Your task to perform on an android device: open app "Venmo" (install if not already installed) and go to login screen Image 0: 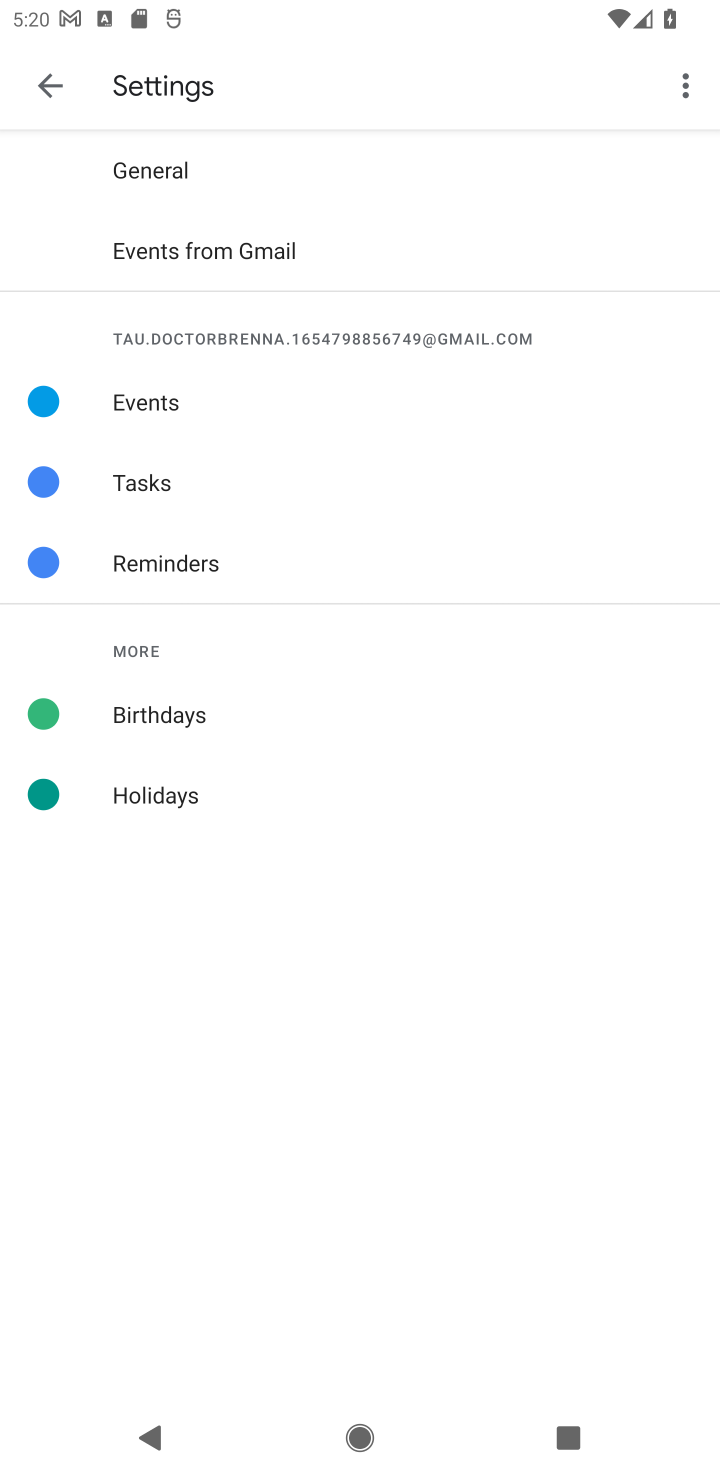
Step 0: press home button
Your task to perform on an android device: open app "Venmo" (install if not already installed) and go to login screen Image 1: 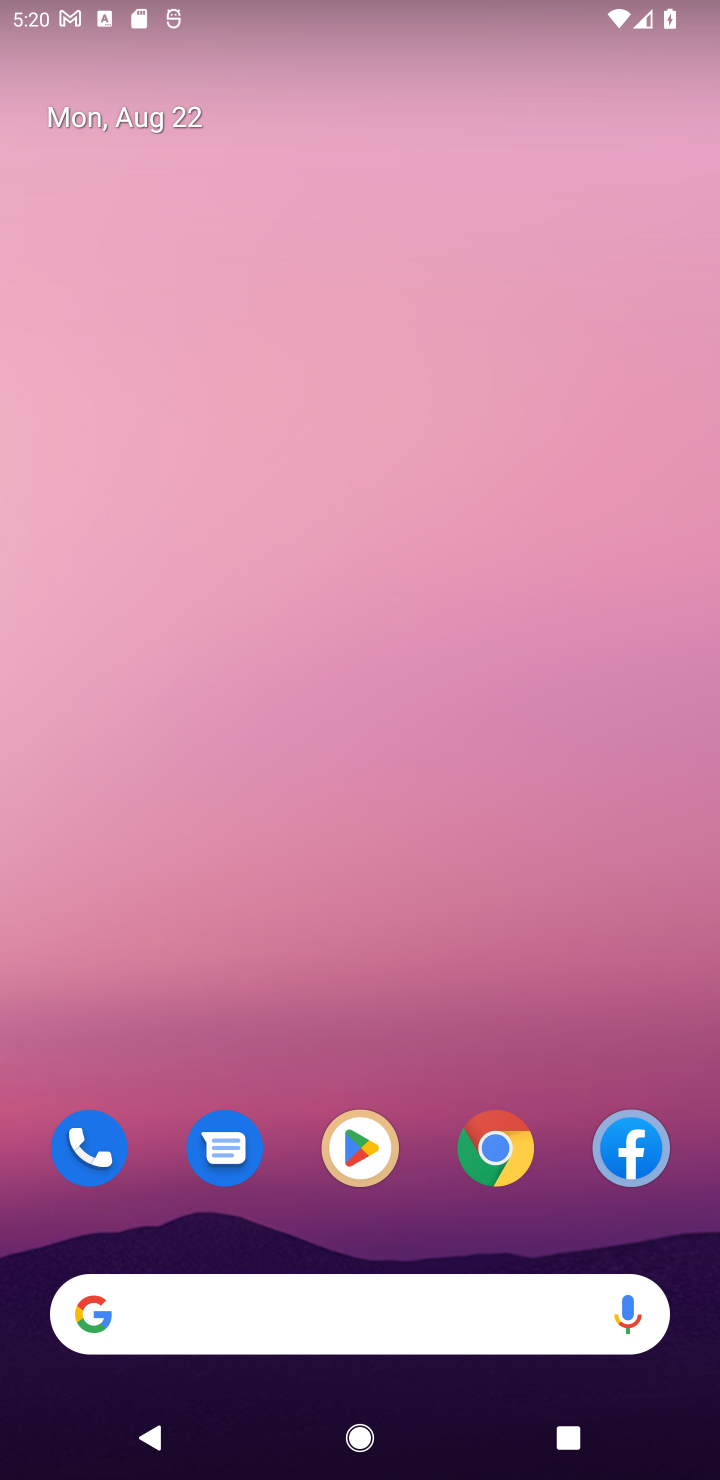
Step 1: click (364, 1141)
Your task to perform on an android device: open app "Venmo" (install if not already installed) and go to login screen Image 2: 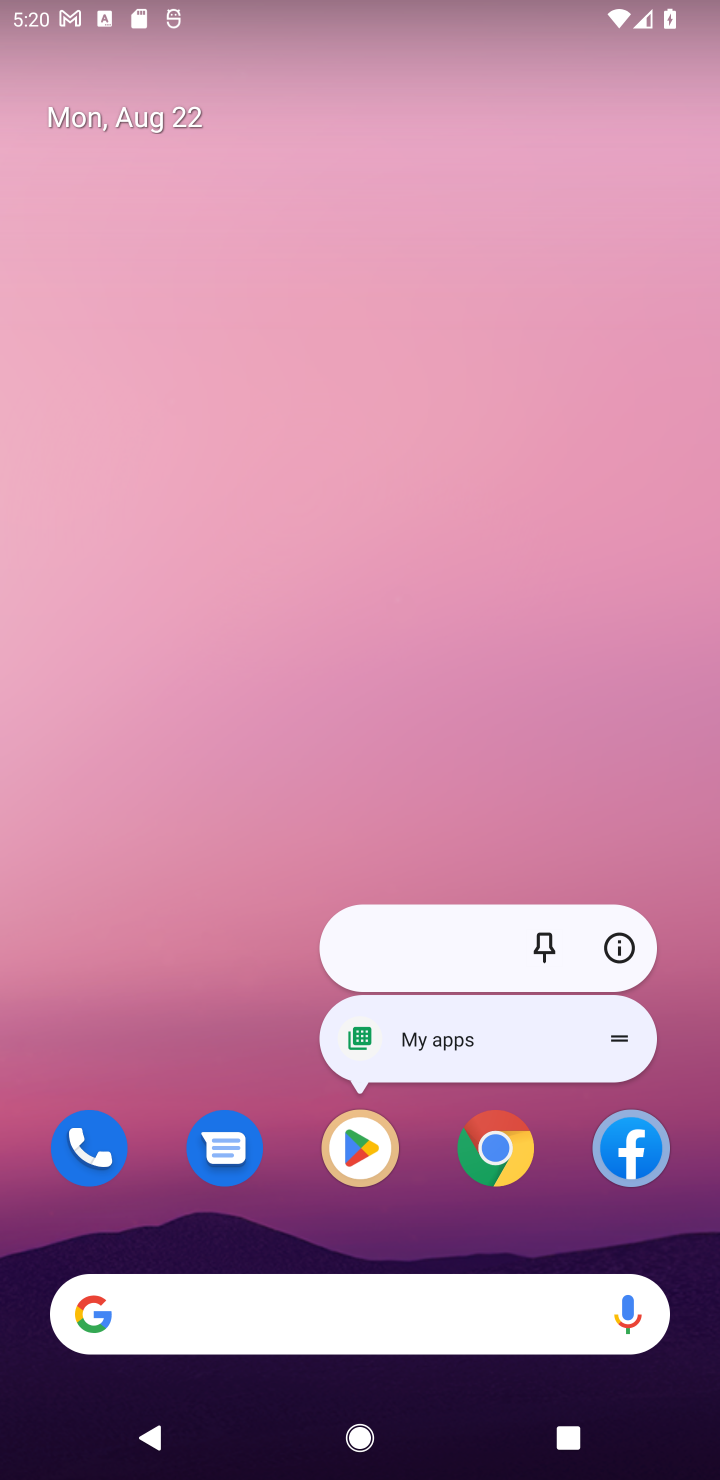
Step 2: click (360, 1143)
Your task to perform on an android device: open app "Venmo" (install if not already installed) and go to login screen Image 3: 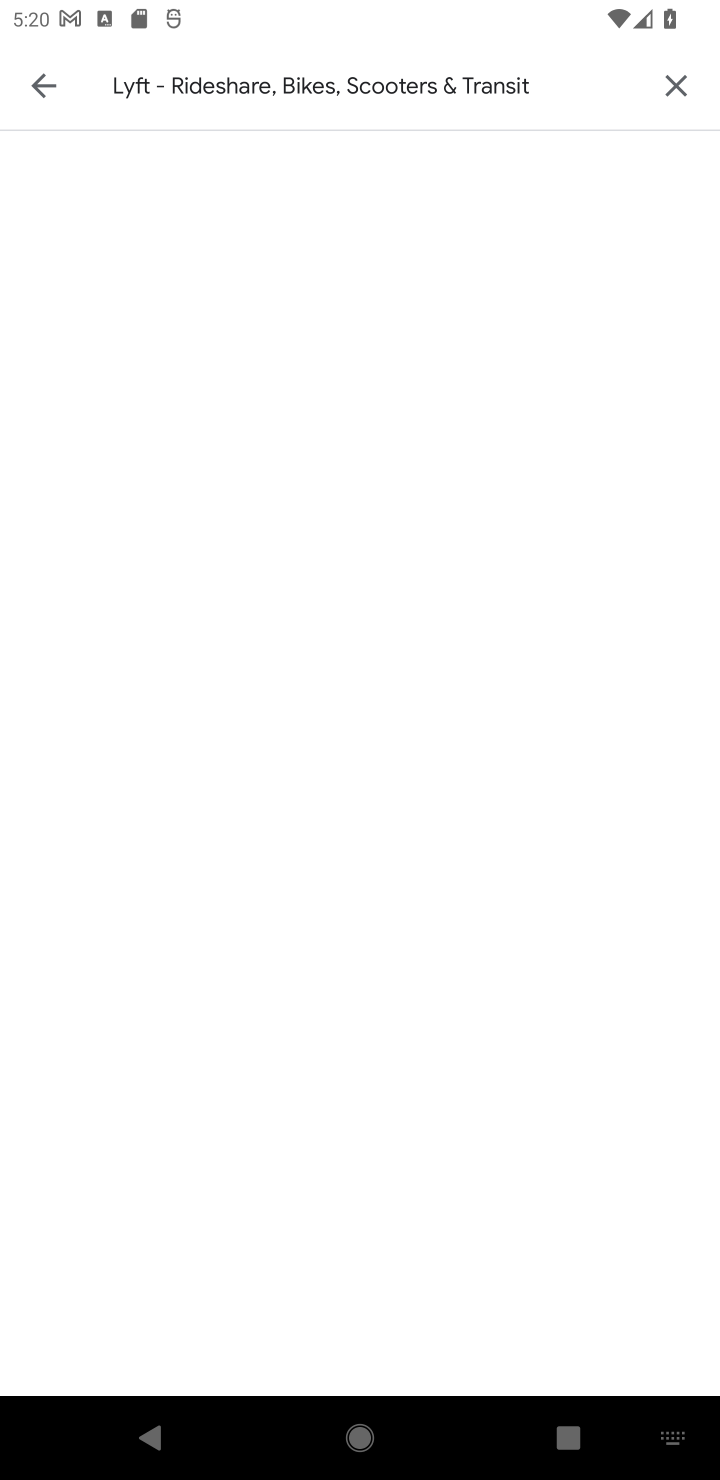
Step 3: click (677, 75)
Your task to perform on an android device: open app "Venmo" (install if not already installed) and go to login screen Image 4: 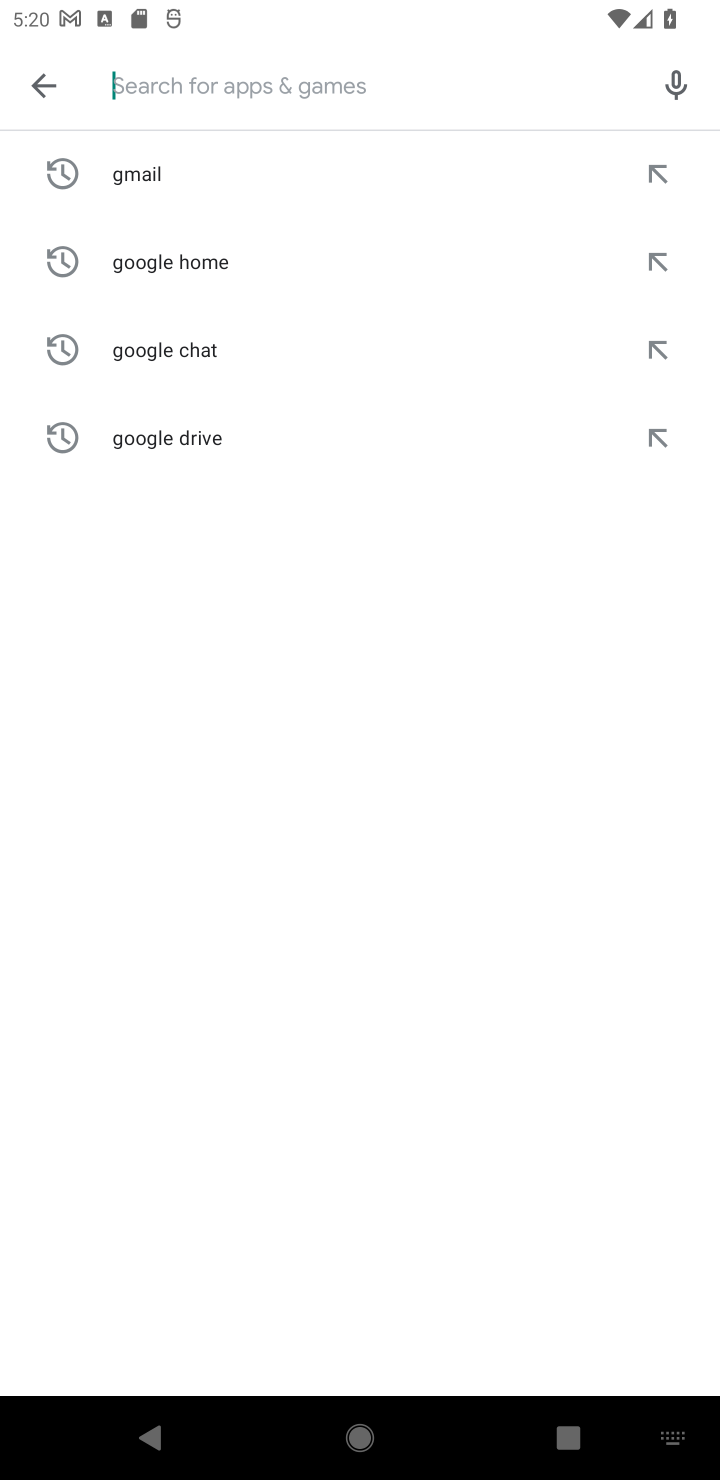
Step 4: type "Venmo"
Your task to perform on an android device: open app "Venmo" (install if not already installed) and go to login screen Image 5: 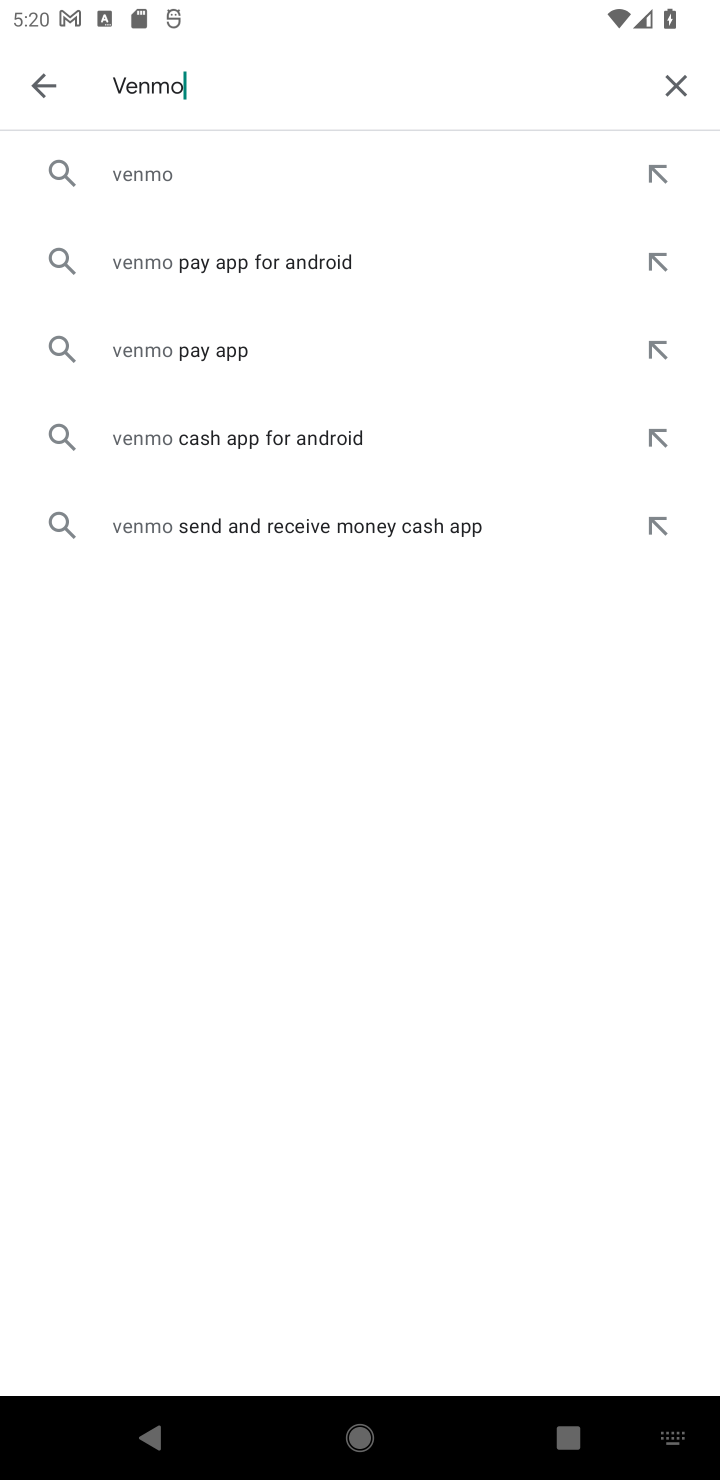
Step 5: click (129, 172)
Your task to perform on an android device: open app "Venmo" (install if not already installed) and go to login screen Image 6: 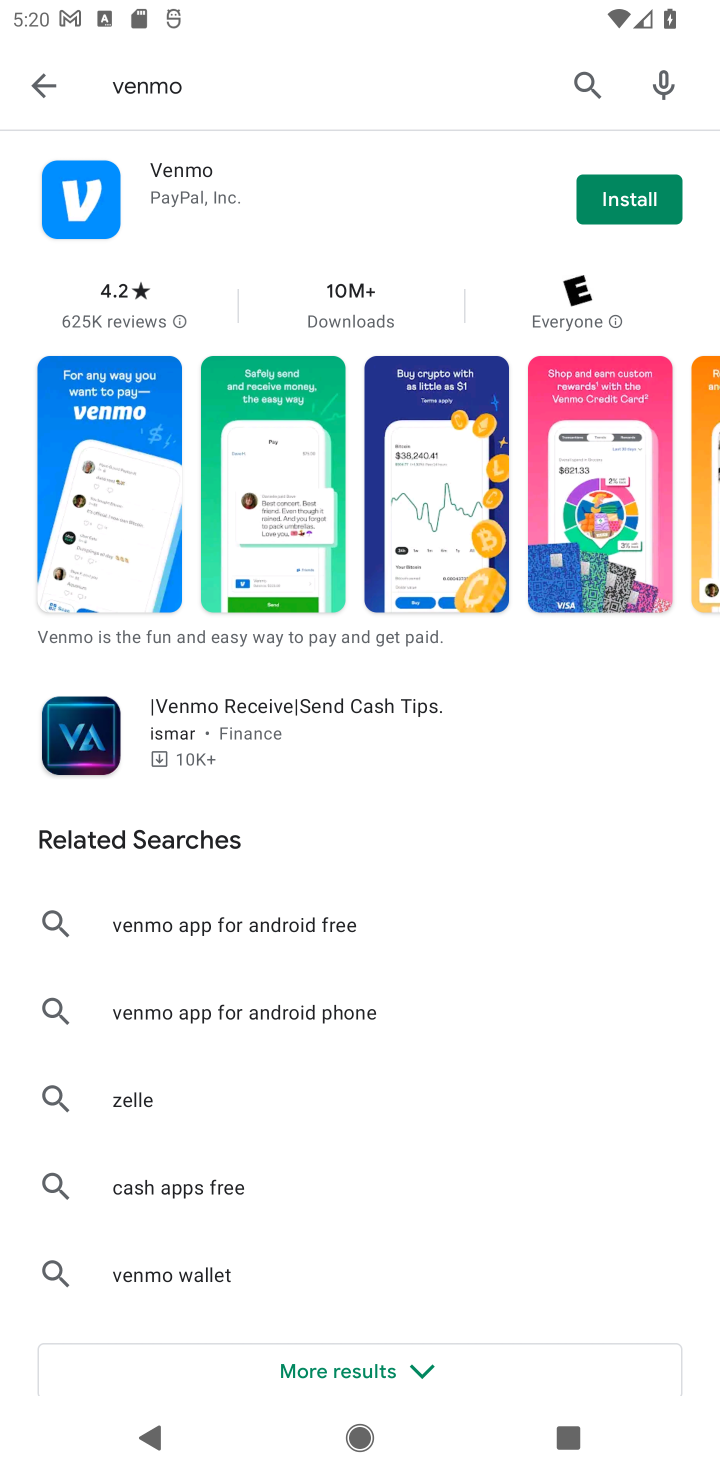
Step 6: click (644, 198)
Your task to perform on an android device: open app "Venmo" (install if not already installed) and go to login screen Image 7: 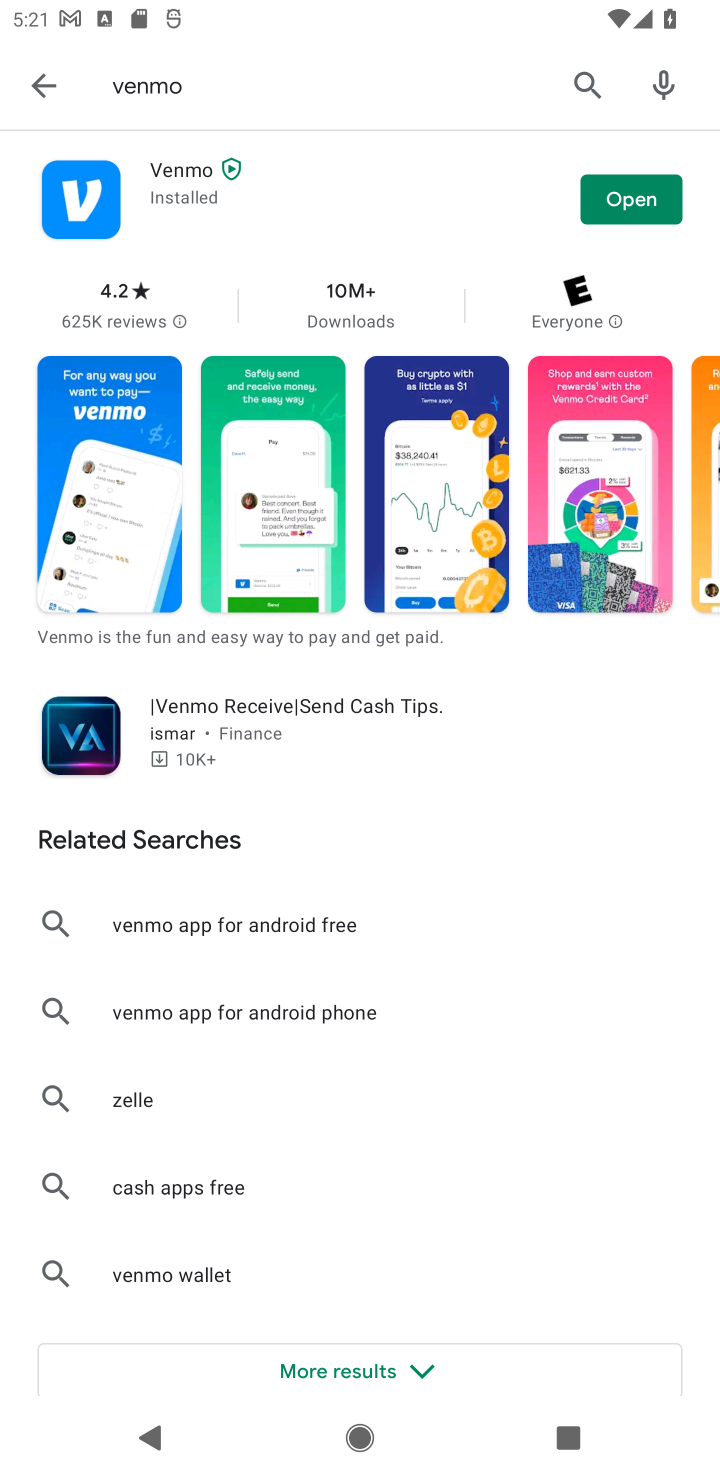
Step 7: click (632, 193)
Your task to perform on an android device: open app "Venmo" (install if not already installed) and go to login screen Image 8: 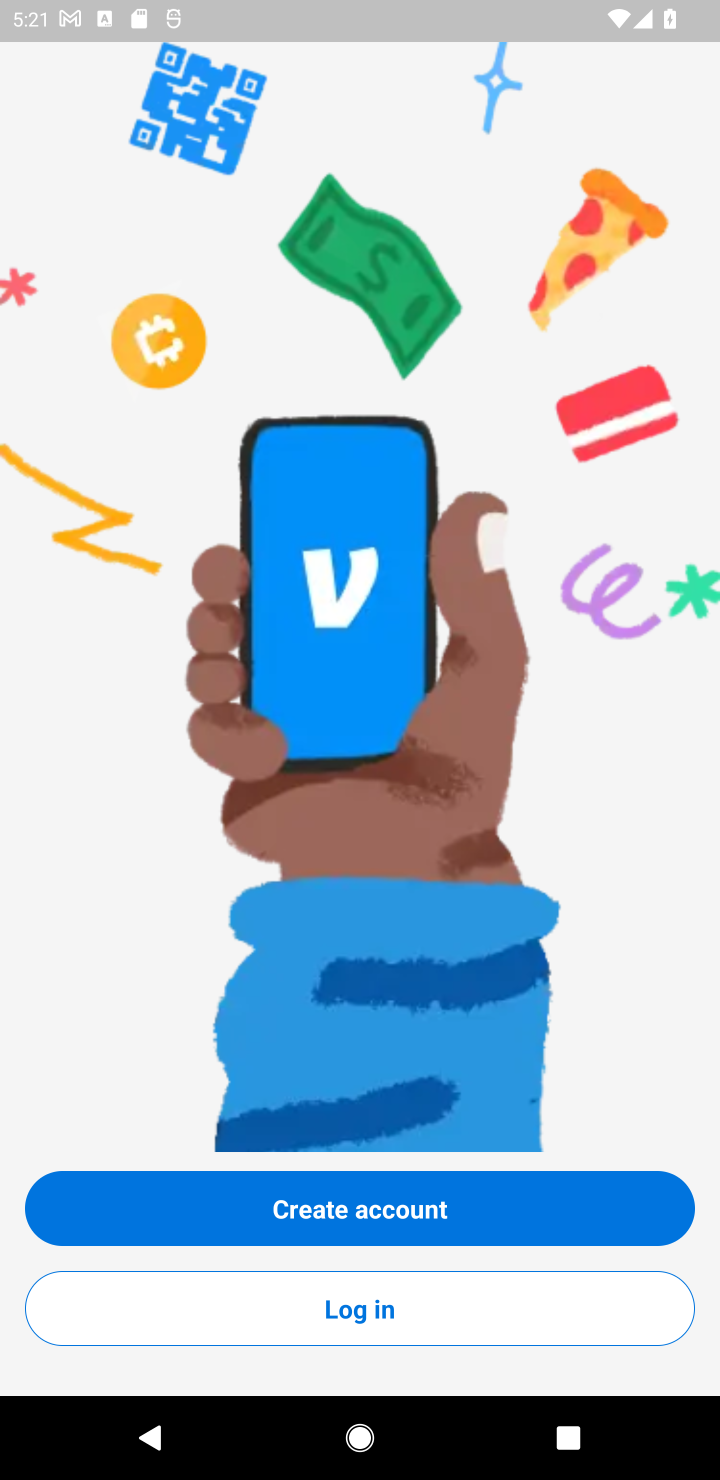
Step 8: task complete